Your task to perform on an android device: What is the recent news? Image 0: 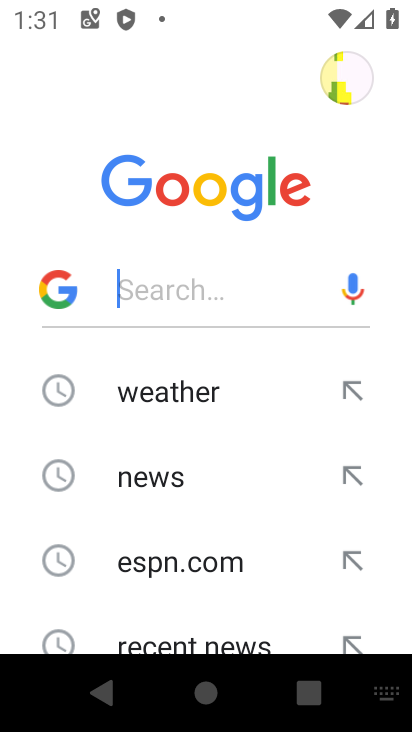
Step 0: type "what is the recent news"
Your task to perform on an android device: What is the recent news? Image 1: 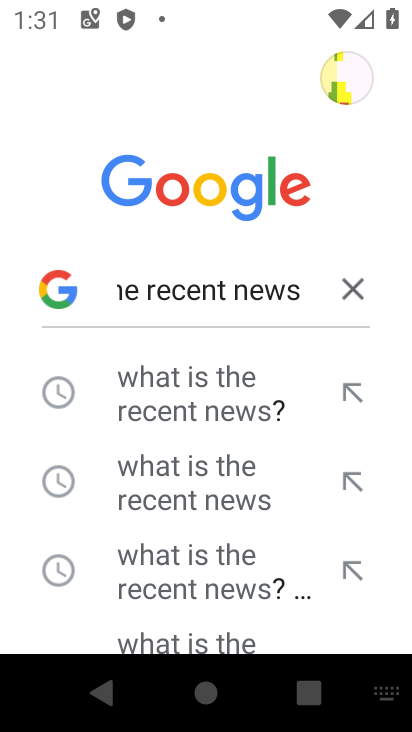
Step 1: click (132, 384)
Your task to perform on an android device: What is the recent news? Image 2: 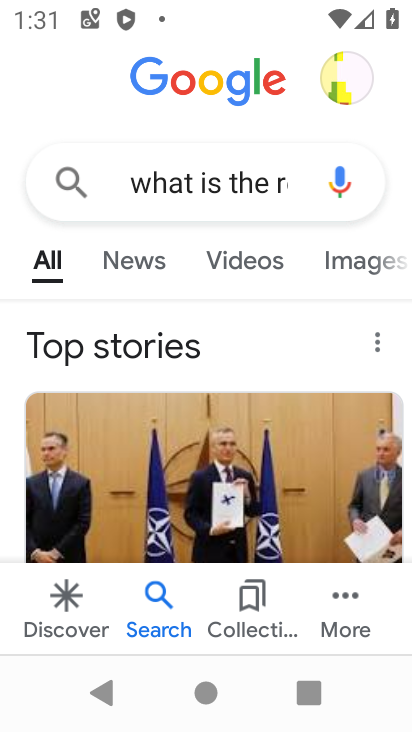
Step 2: click (160, 273)
Your task to perform on an android device: What is the recent news? Image 3: 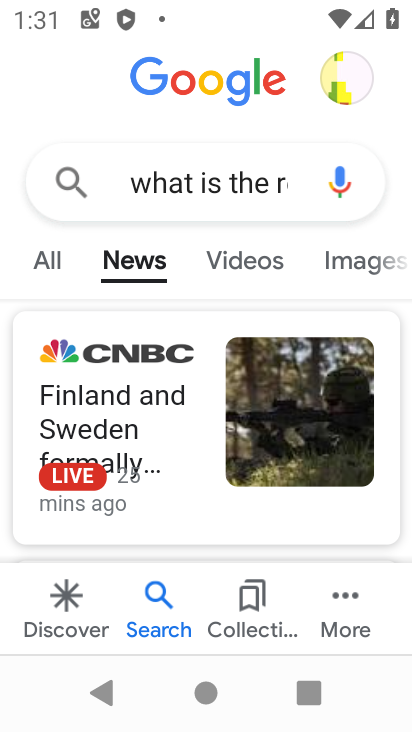
Step 3: task complete